Your task to perform on an android device: Open the Play Movies app and select the watchlist tab. Image 0: 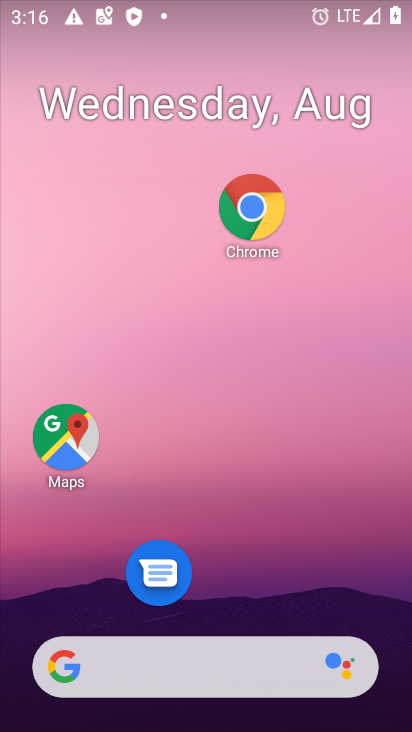
Step 0: drag from (140, 646) to (215, 134)
Your task to perform on an android device: Open the Play Movies app and select the watchlist tab. Image 1: 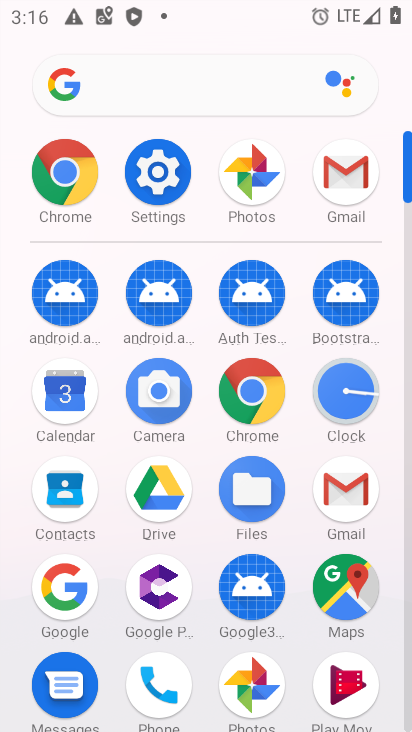
Step 1: click (348, 708)
Your task to perform on an android device: Open the Play Movies app and select the watchlist tab. Image 2: 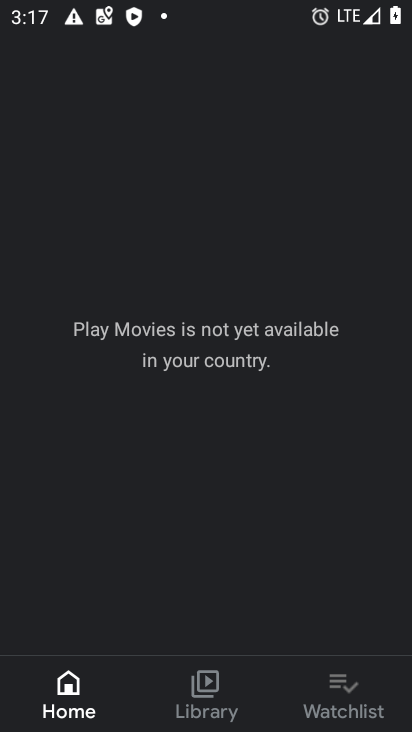
Step 2: click (354, 692)
Your task to perform on an android device: Open the Play Movies app and select the watchlist tab. Image 3: 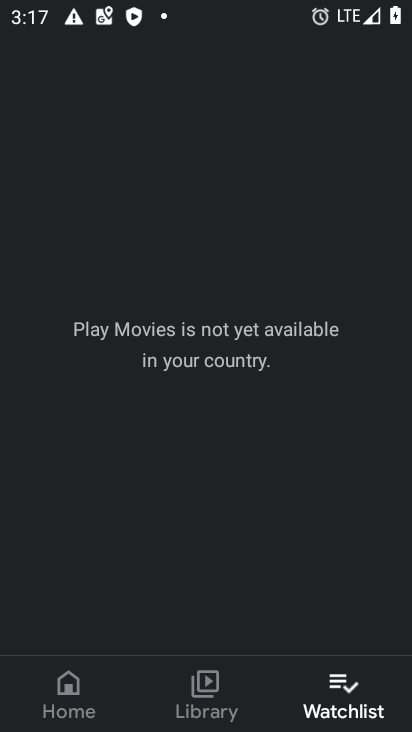
Step 3: task complete